Your task to perform on an android device: toggle show notifications on the lock screen Image 0: 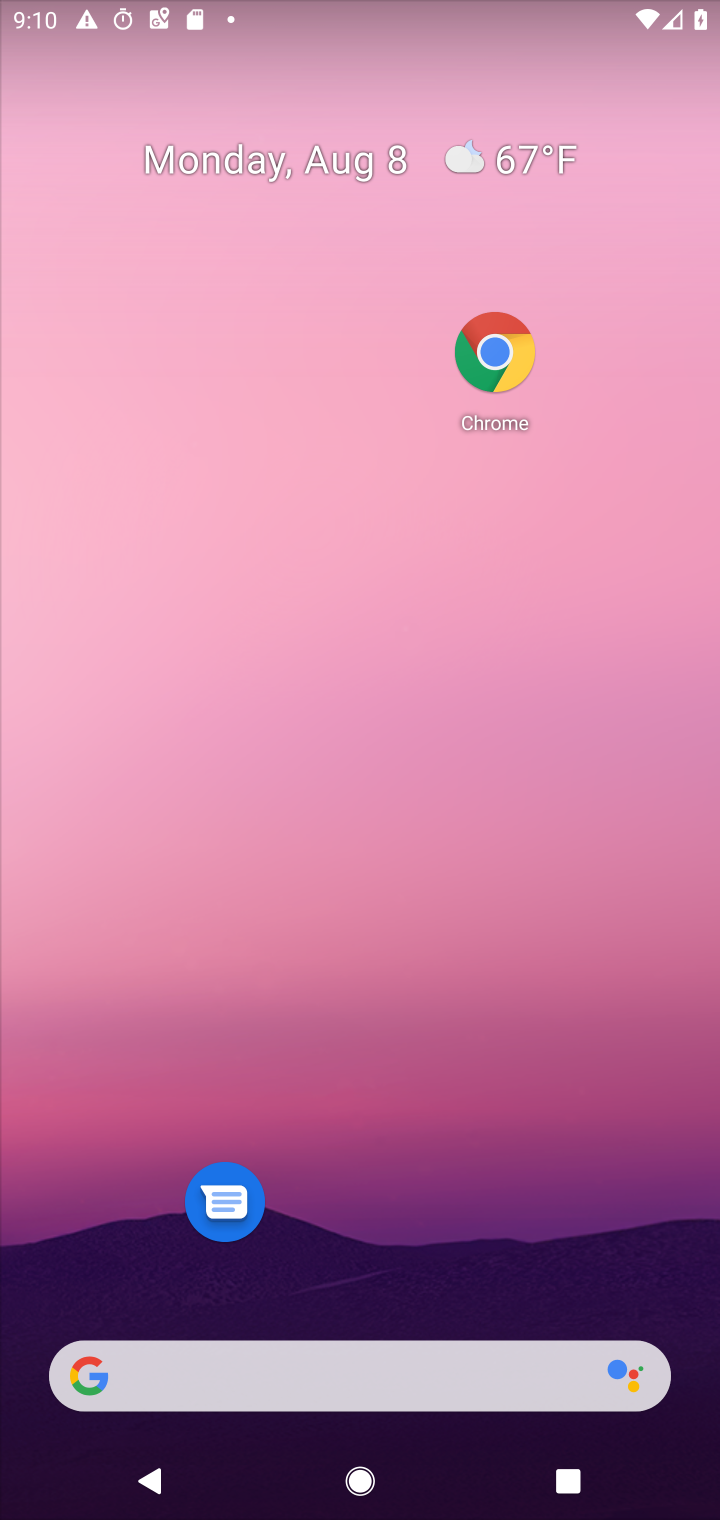
Step 0: drag from (413, 1281) to (594, 12)
Your task to perform on an android device: toggle show notifications on the lock screen Image 1: 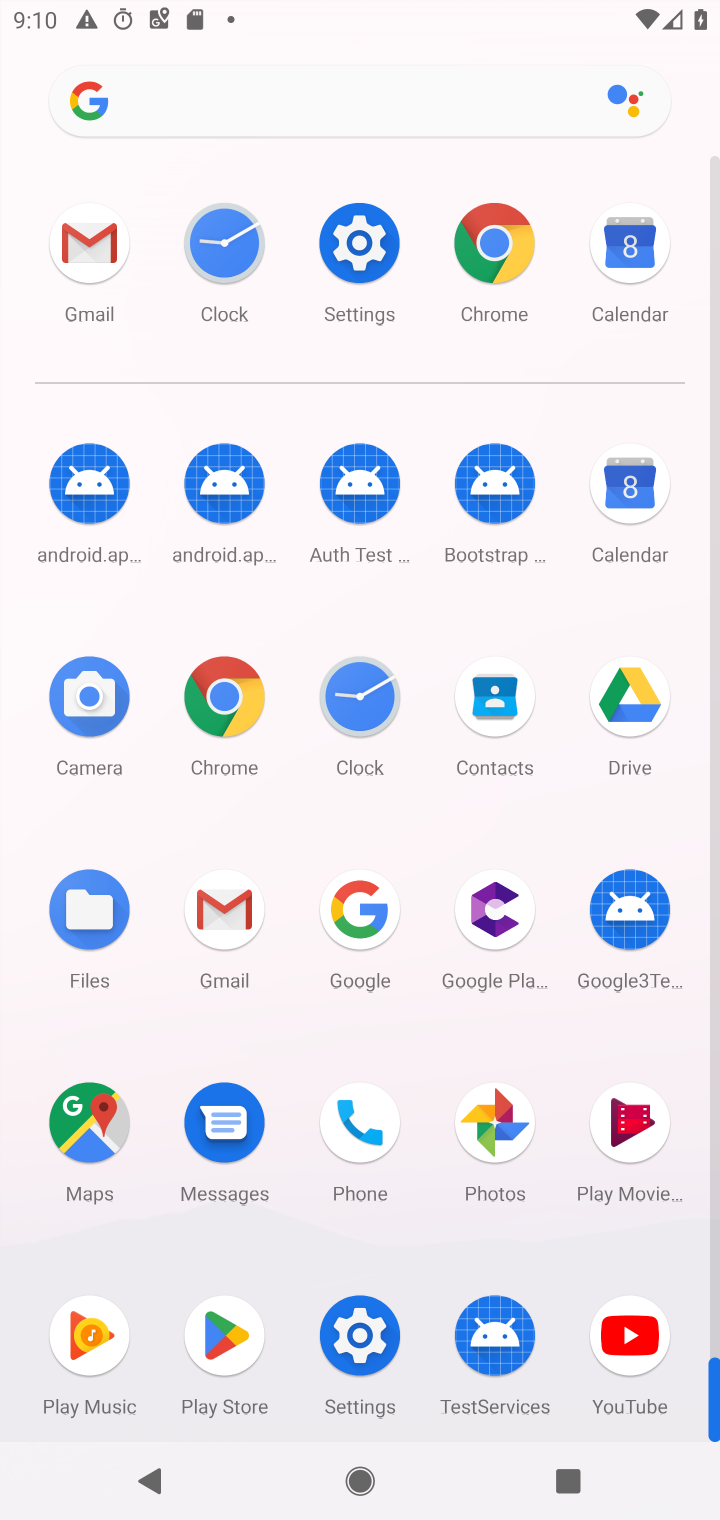
Step 1: click (365, 287)
Your task to perform on an android device: toggle show notifications on the lock screen Image 2: 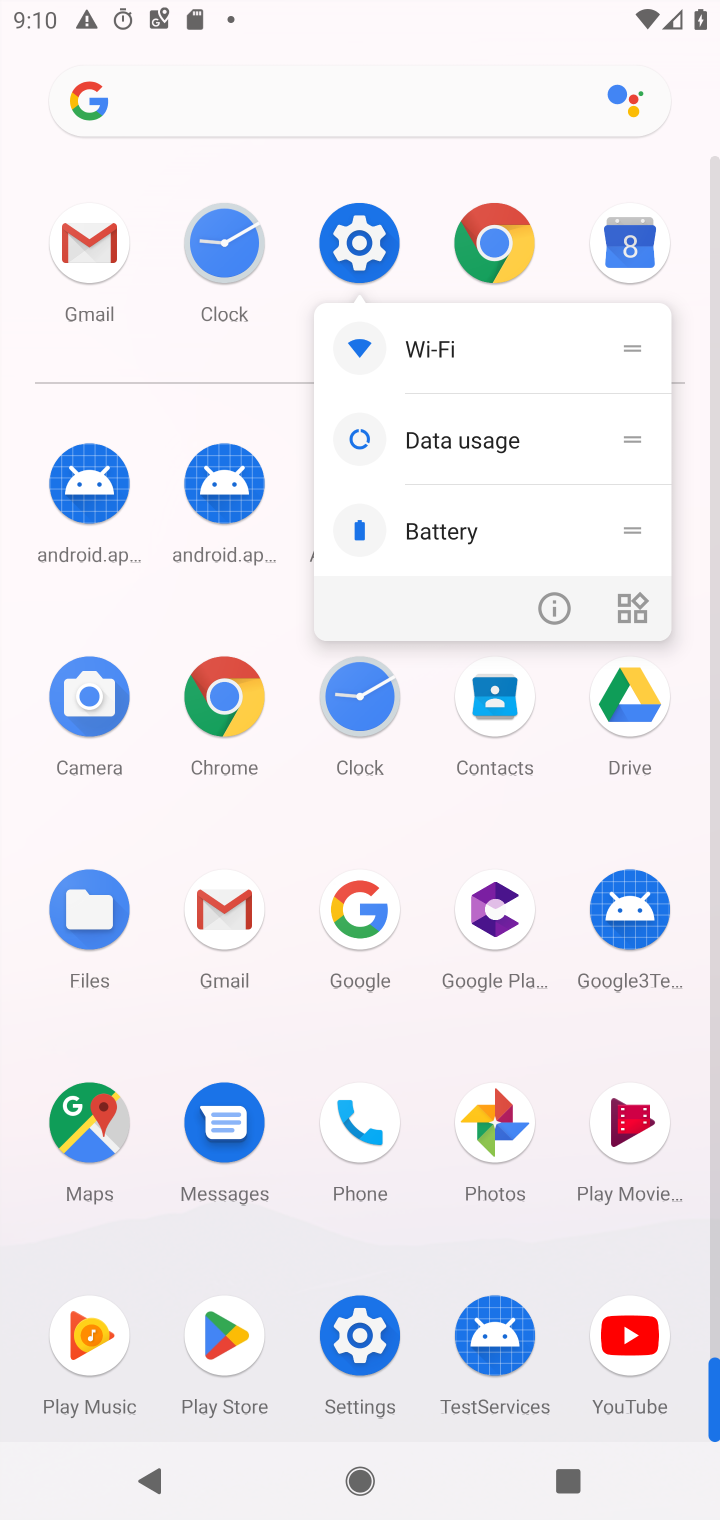
Step 2: click (358, 253)
Your task to perform on an android device: toggle show notifications on the lock screen Image 3: 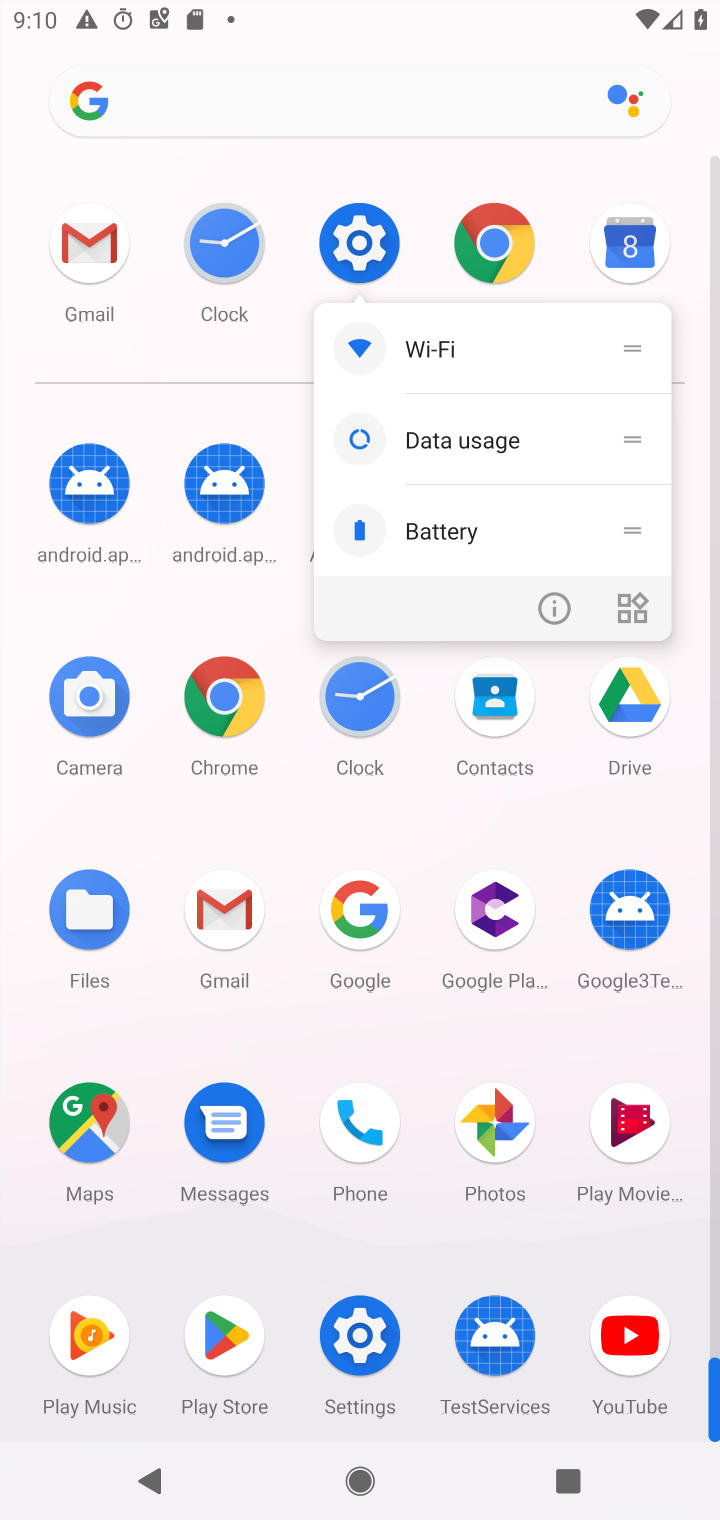
Step 3: click (342, 226)
Your task to perform on an android device: toggle show notifications on the lock screen Image 4: 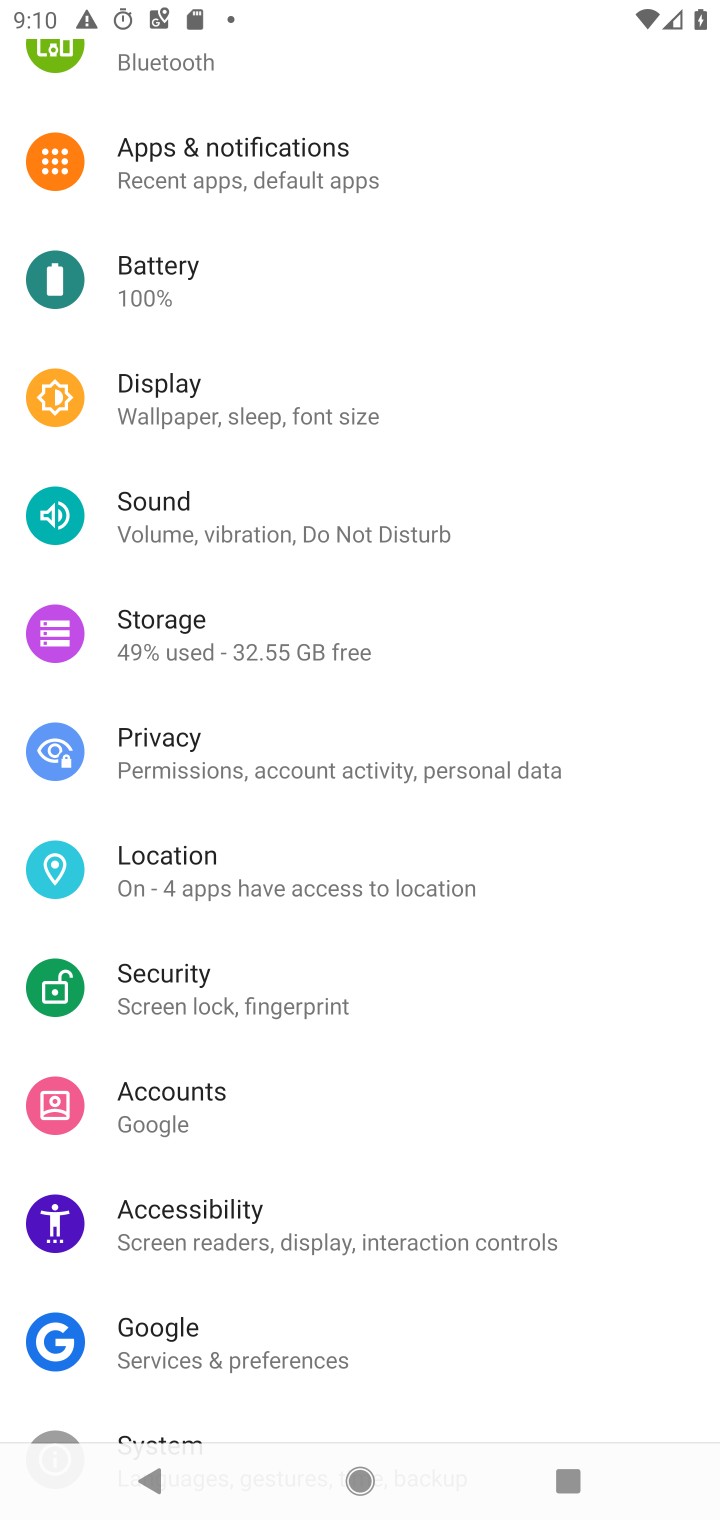
Step 4: click (305, 166)
Your task to perform on an android device: toggle show notifications on the lock screen Image 5: 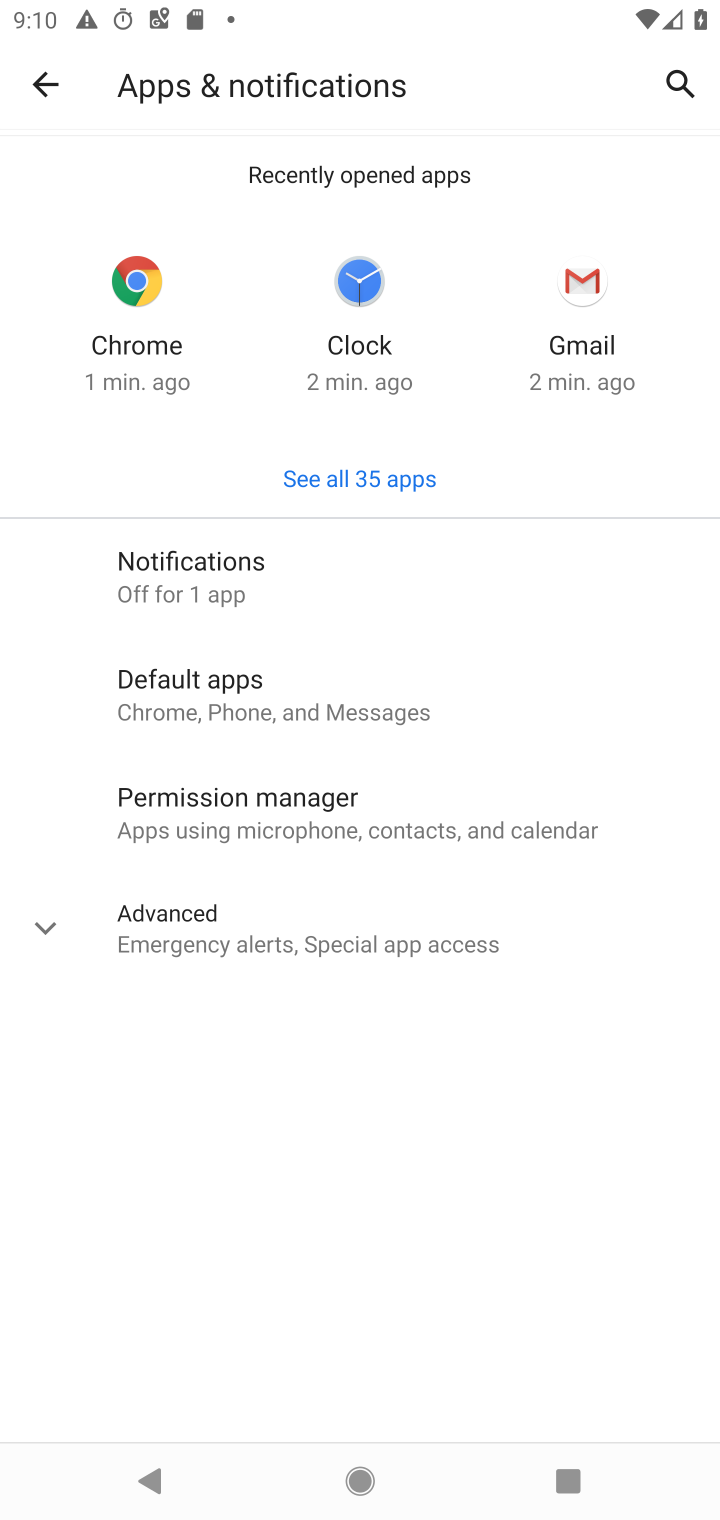
Step 5: click (233, 579)
Your task to perform on an android device: toggle show notifications on the lock screen Image 6: 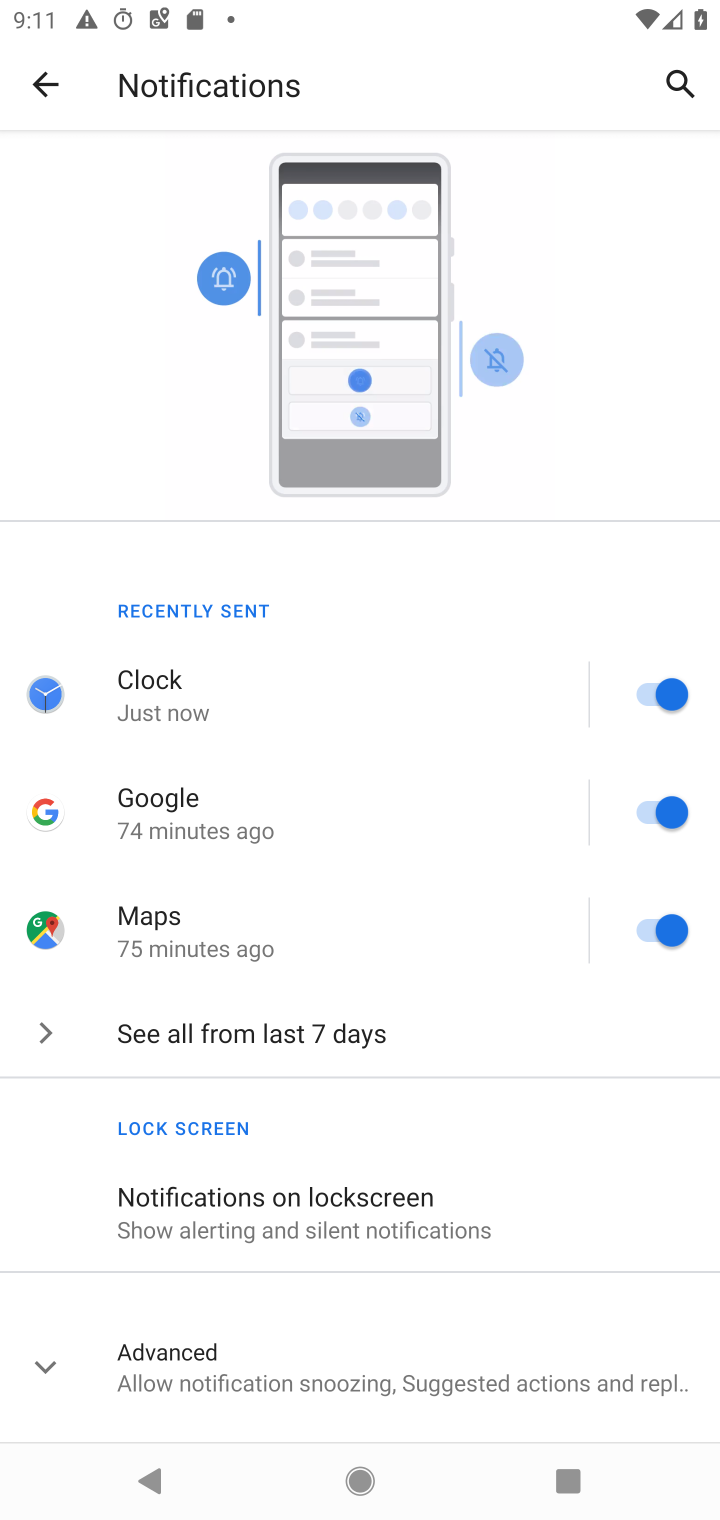
Step 6: click (324, 1203)
Your task to perform on an android device: toggle show notifications on the lock screen Image 7: 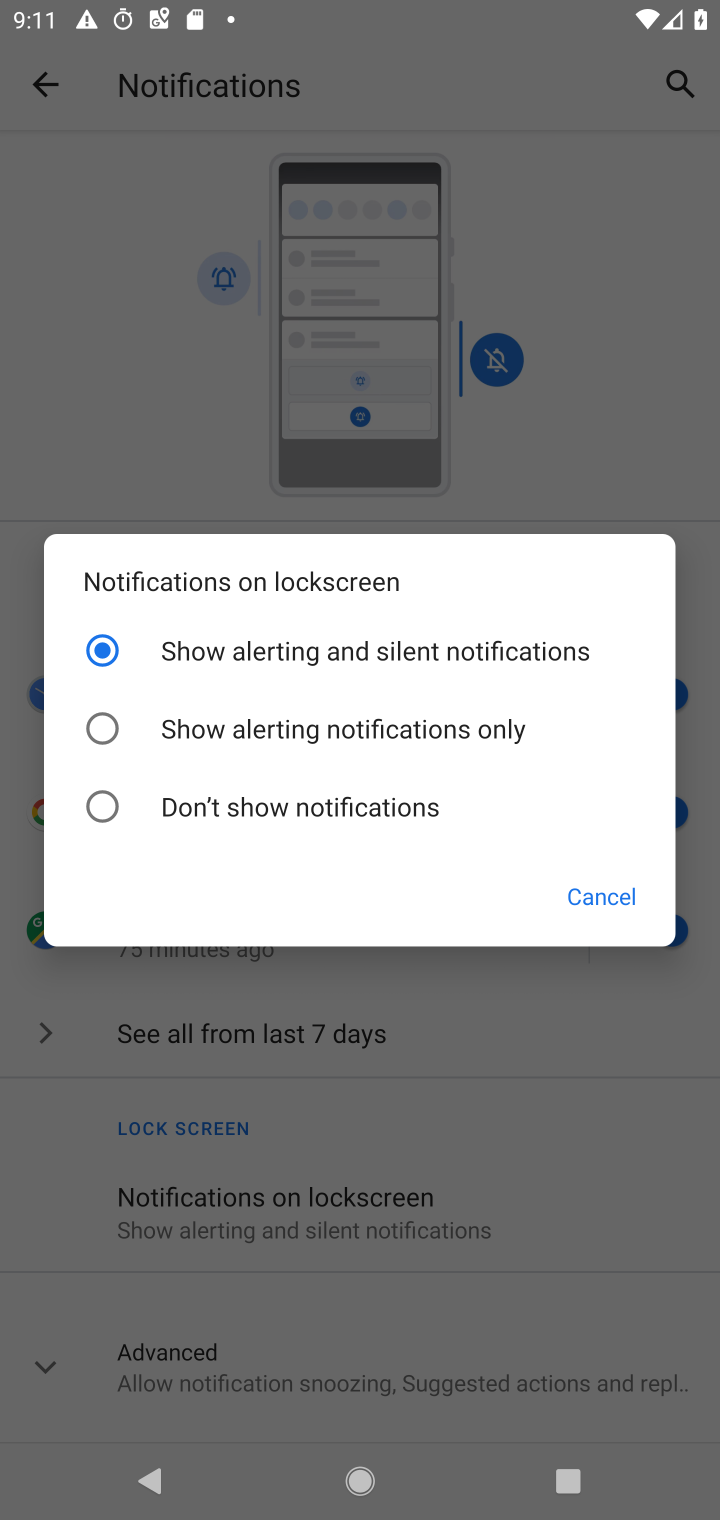
Step 7: click (273, 790)
Your task to perform on an android device: toggle show notifications on the lock screen Image 8: 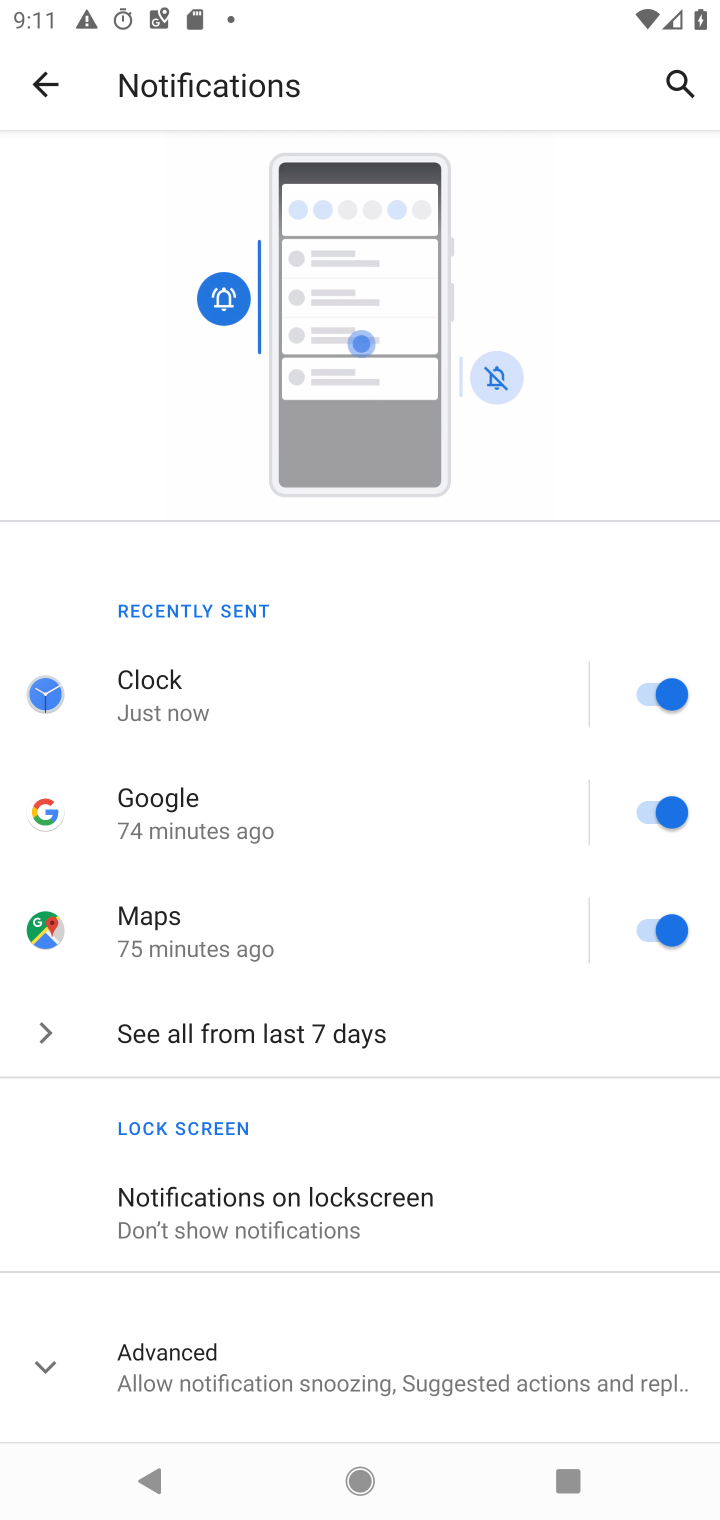
Step 8: task complete